Your task to perform on an android device: Go to battery settings Image 0: 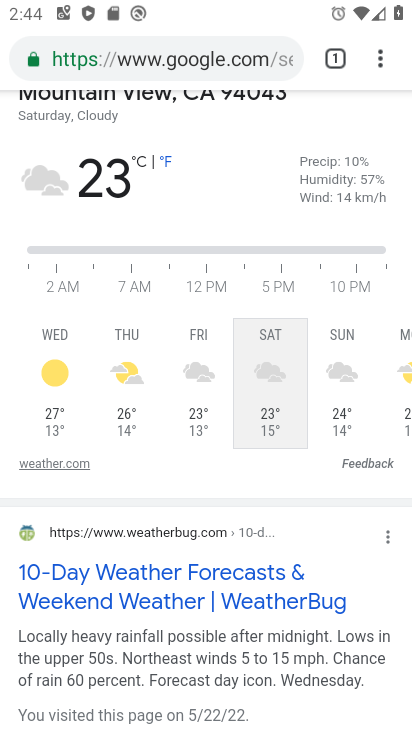
Step 0: press back button
Your task to perform on an android device: Go to battery settings Image 1: 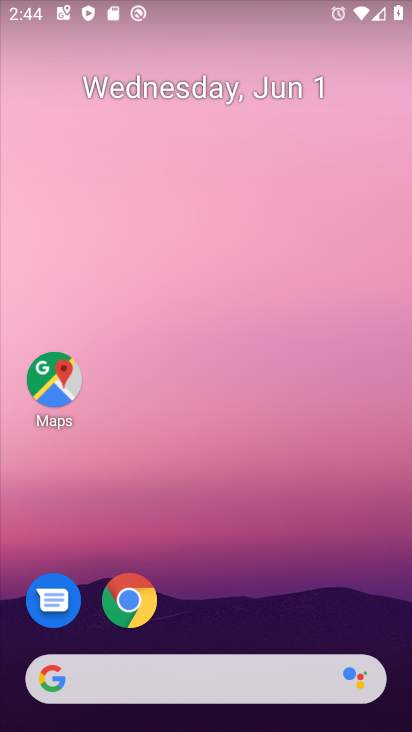
Step 1: drag from (286, 523) to (201, 26)
Your task to perform on an android device: Go to battery settings Image 2: 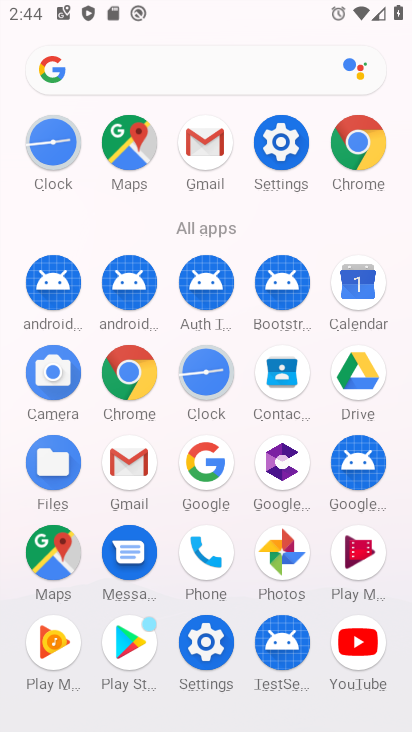
Step 2: drag from (13, 544) to (12, 180)
Your task to perform on an android device: Go to battery settings Image 3: 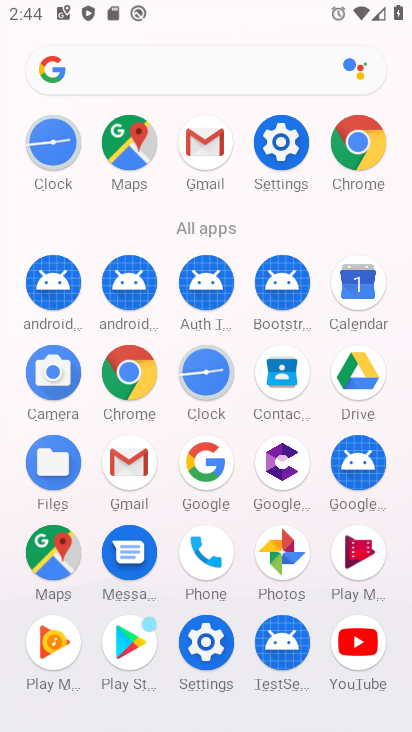
Step 3: click (205, 642)
Your task to perform on an android device: Go to battery settings Image 4: 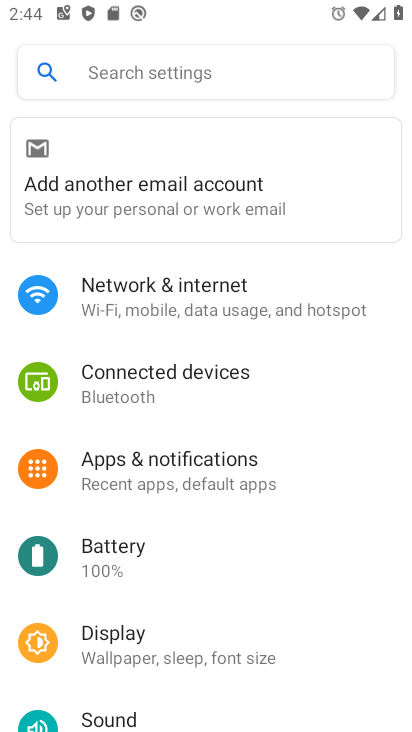
Step 4: drag from (243, 563) to (257, 278)
Your task to perform on an android device: Go to battery settings Image 5: 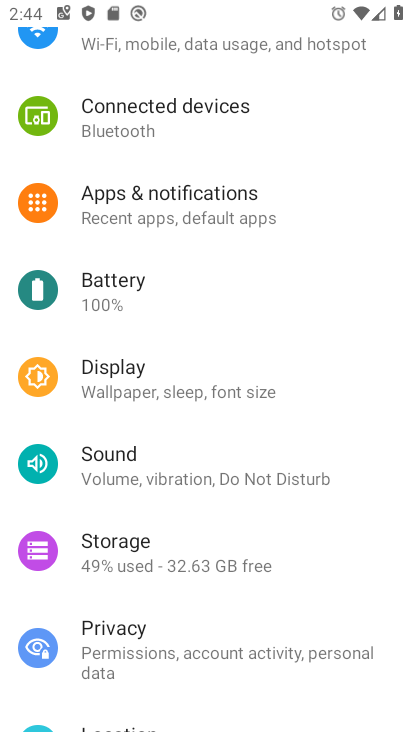
Step 5: drag from (246, 581) to (248, 212)
Your task to perform on an android device: Go to battery settings Image 6: 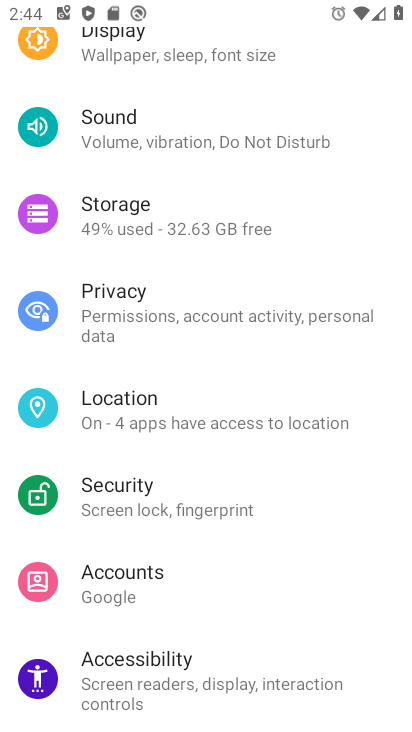
Step 6: drag from (242, 503) to (243, 292)
Your task to perform on an android device: Go to battery settings Image 7: 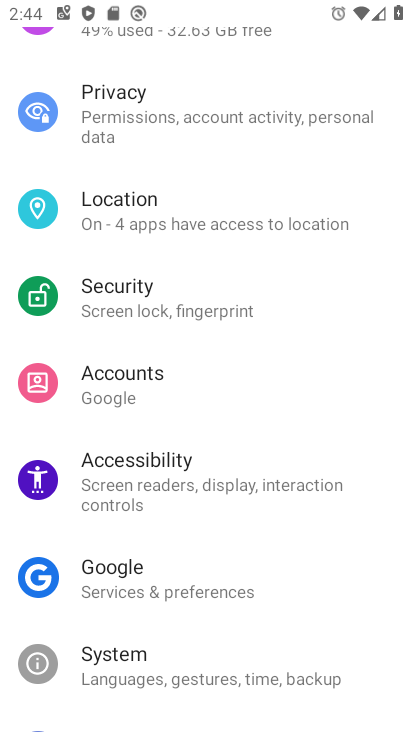
Step 7: drag from (222, 402) to (224, 223)
Your task to perform on an android device: Go to battery settings Image 8: 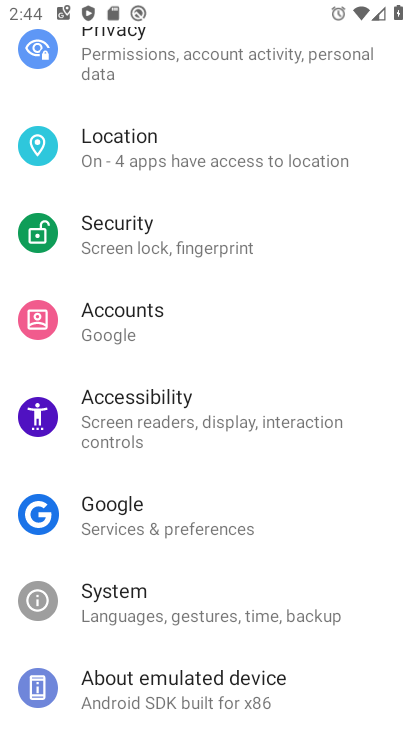
Step 8: drag from (224, 184) to (233, 565)
Your task to perform on an android device: Go to battery settings Image 9: 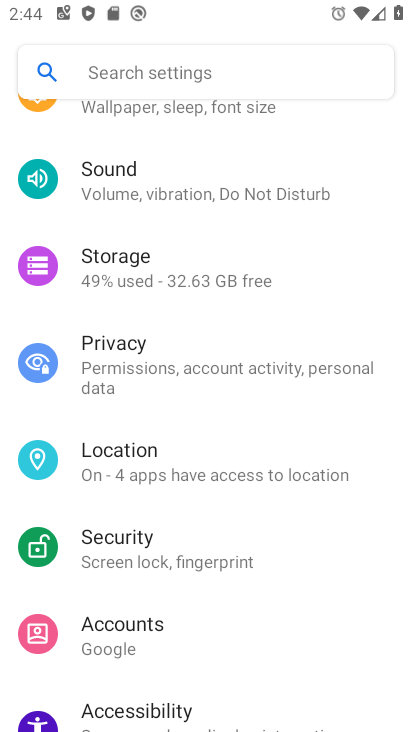
Step 9: drag from (222, 241) to (236, 530)
Your task to perform on an android device: Go to battery settings Image 10: 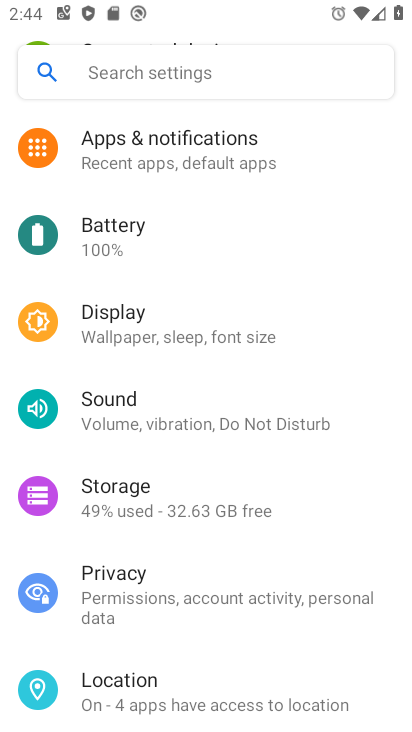
Step 10: click (146, 229)
Your task to perform on an android device: Go to battery settings Image 11: 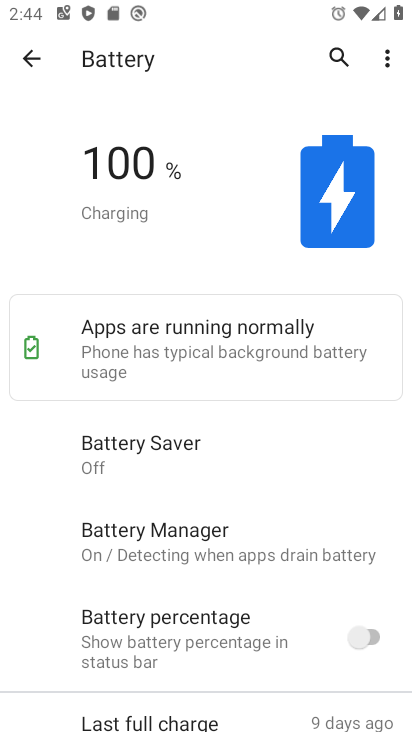
Step 11: task complete